Your task to perform on an android device: Open the stopwatch Image 0: 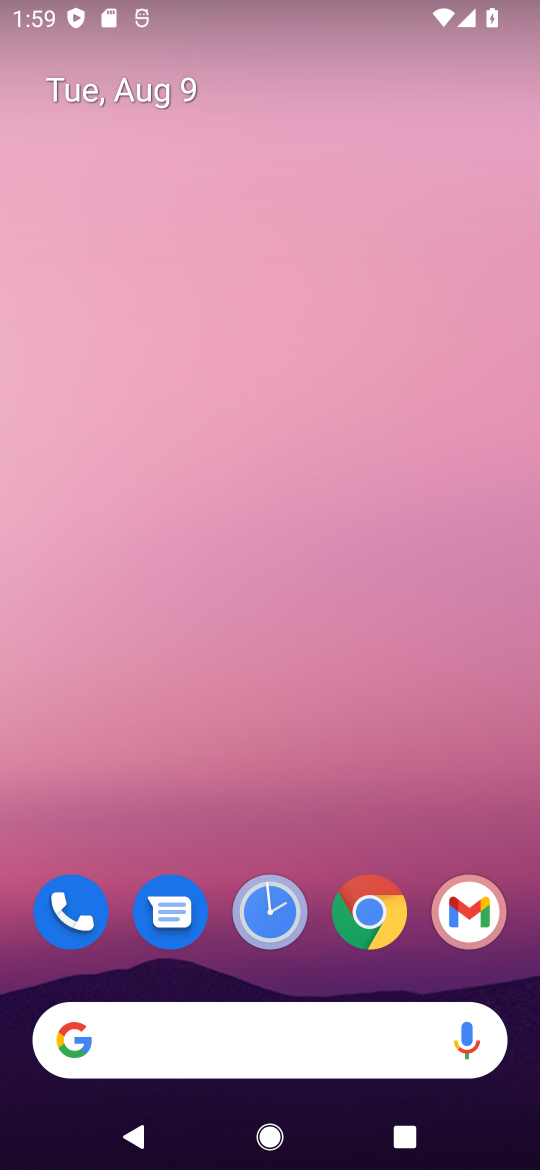
Step 0: click (277, 923)
Your task to perform on an android device: Open the stopwatch Image 1: 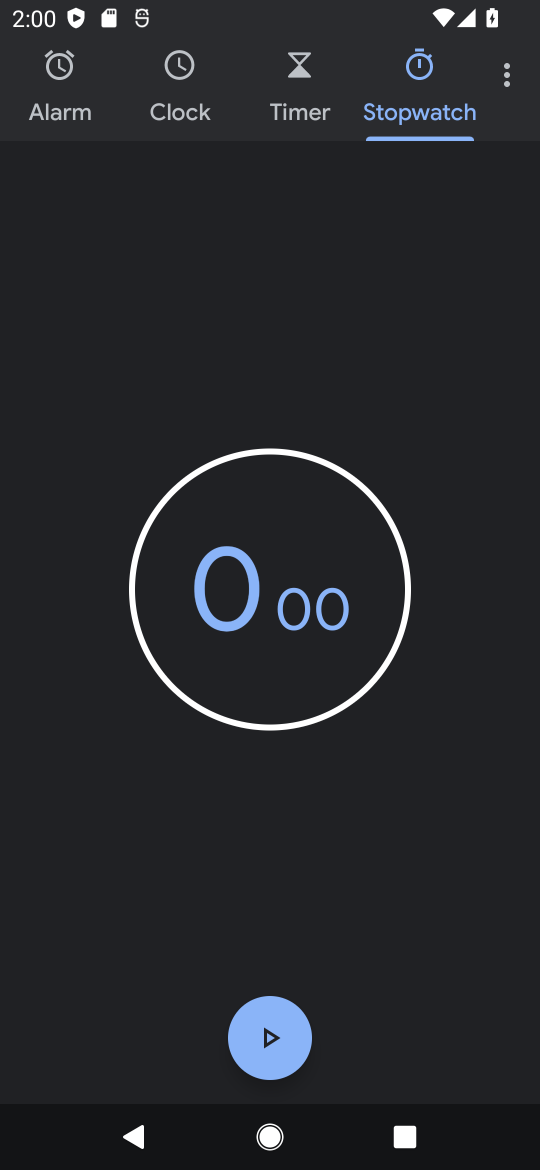
Step 1: task complete